Your task to perform on an android device: Open eBay Image 0: 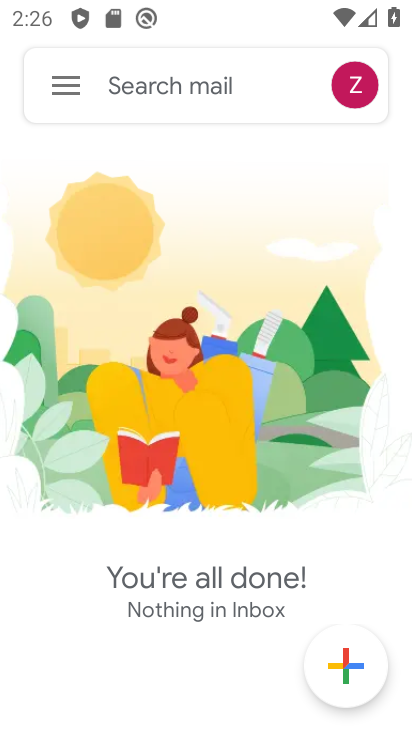
Step 0: press back button
Your task to perform on an android device: Open eBay Image 1: 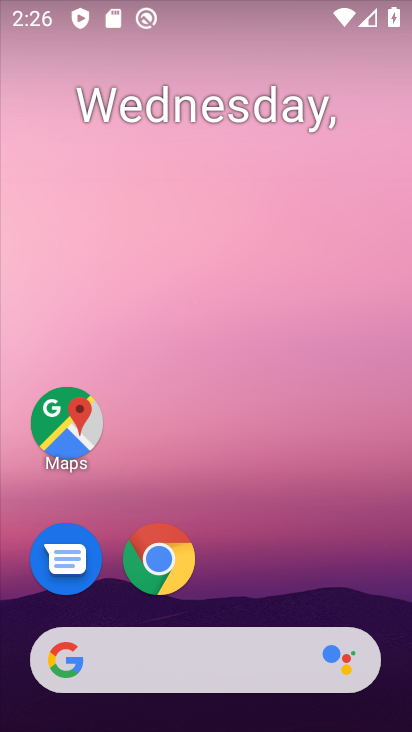
Step 1: click (168, 563)
Your task to perform on an android device: Open eBay Image 2: 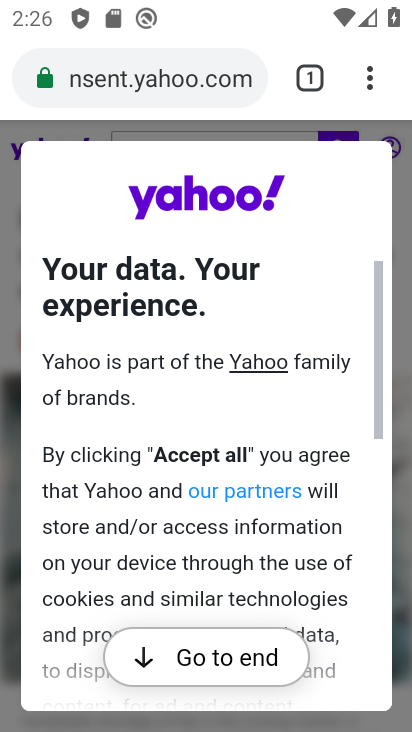
Step 2: click (319, 87)
Your task to perform on an android device: Open eBay Image 3: 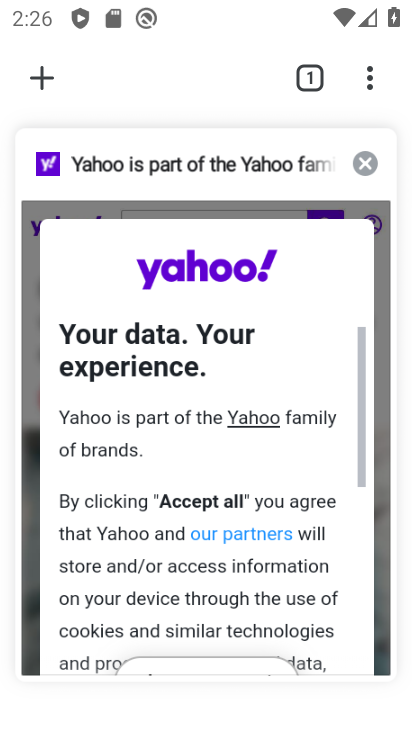
Step 3: click (35, 75)
Your task to perform on an android device: Open eBay Image 4: 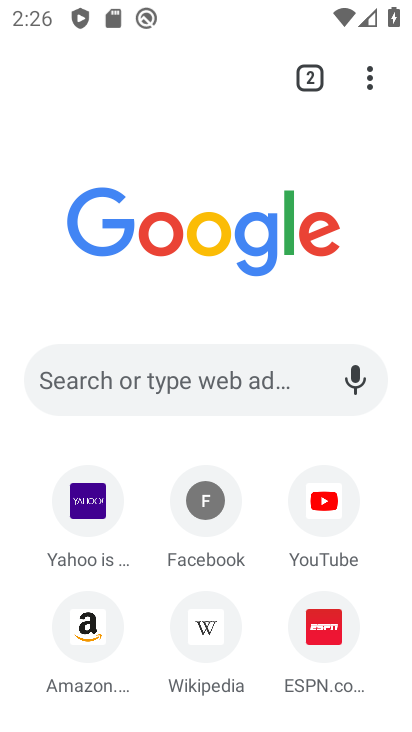
Step 4: click (165, 397)
Your task to perform on an android device: Open eBay Image 5: 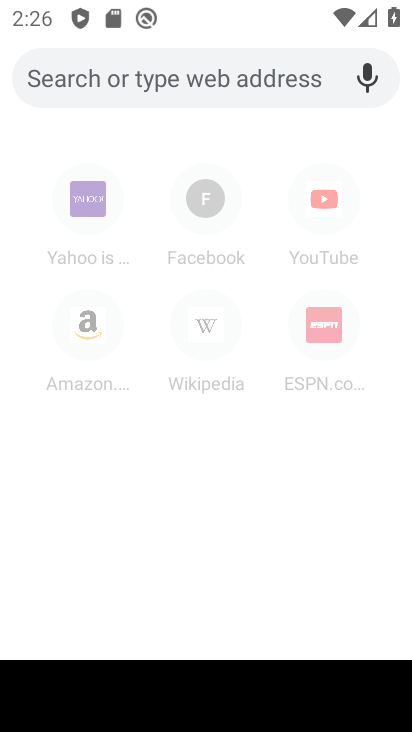
Step 5: type "ebay"
Your task to perform on an android device: Open eBay Image 6: 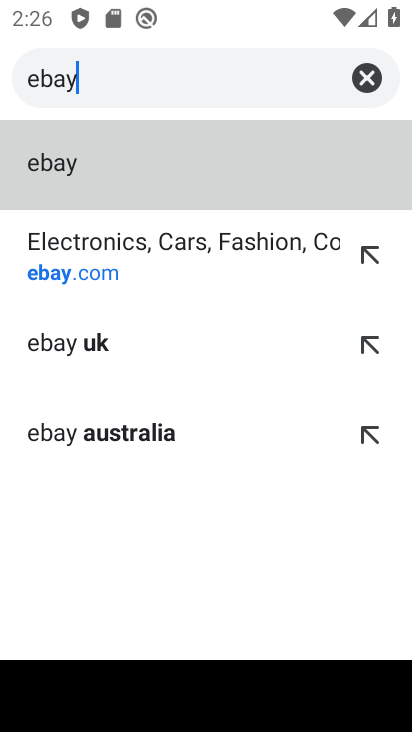
Step 6: click (84, 267)
Your task to perform on an android device: Open eBay Image 7: 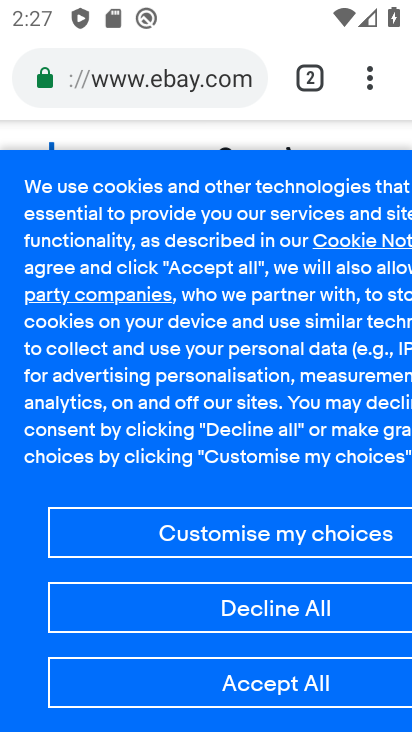
Step 7: task complete